Your task to perform on an android device: Open Google Maps Image 0: 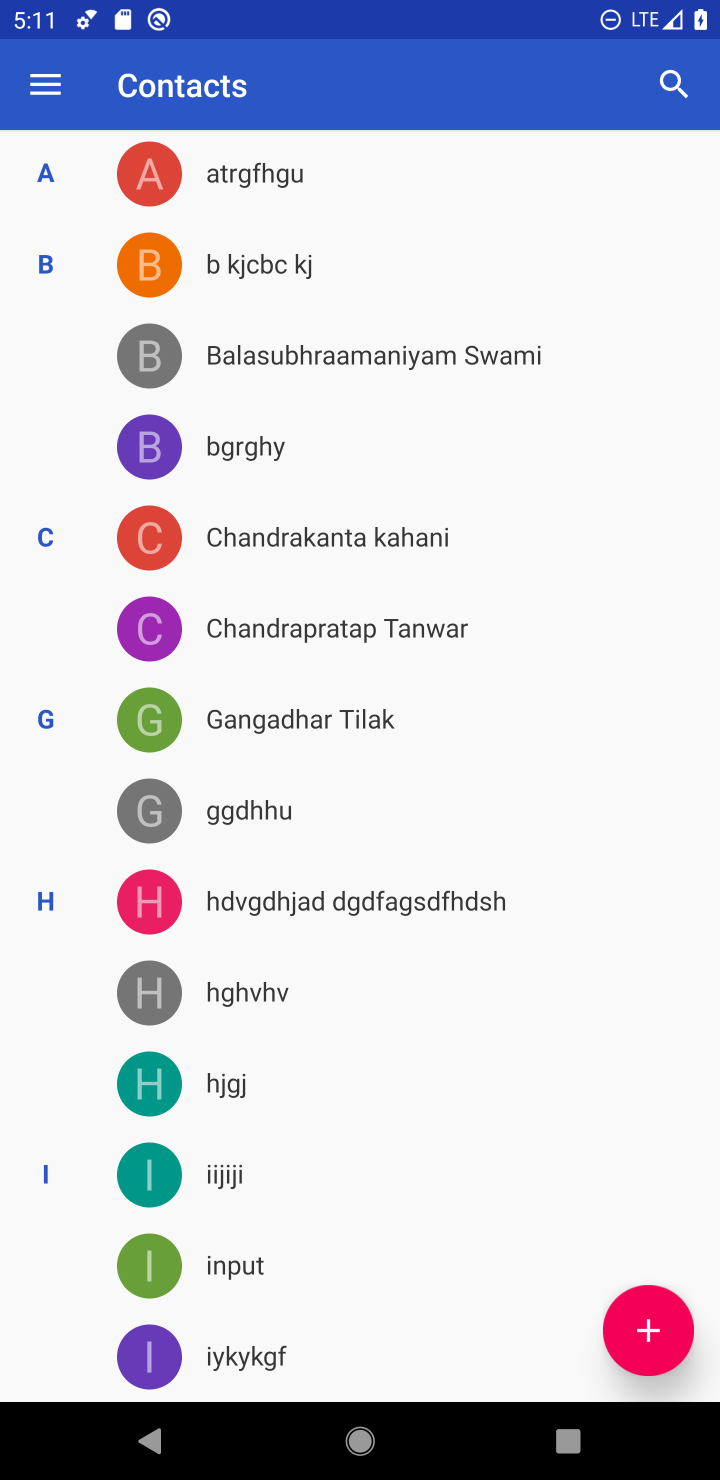
Step 0: press back button
Your task to perform on an android device: Open Google Maps Image 1: 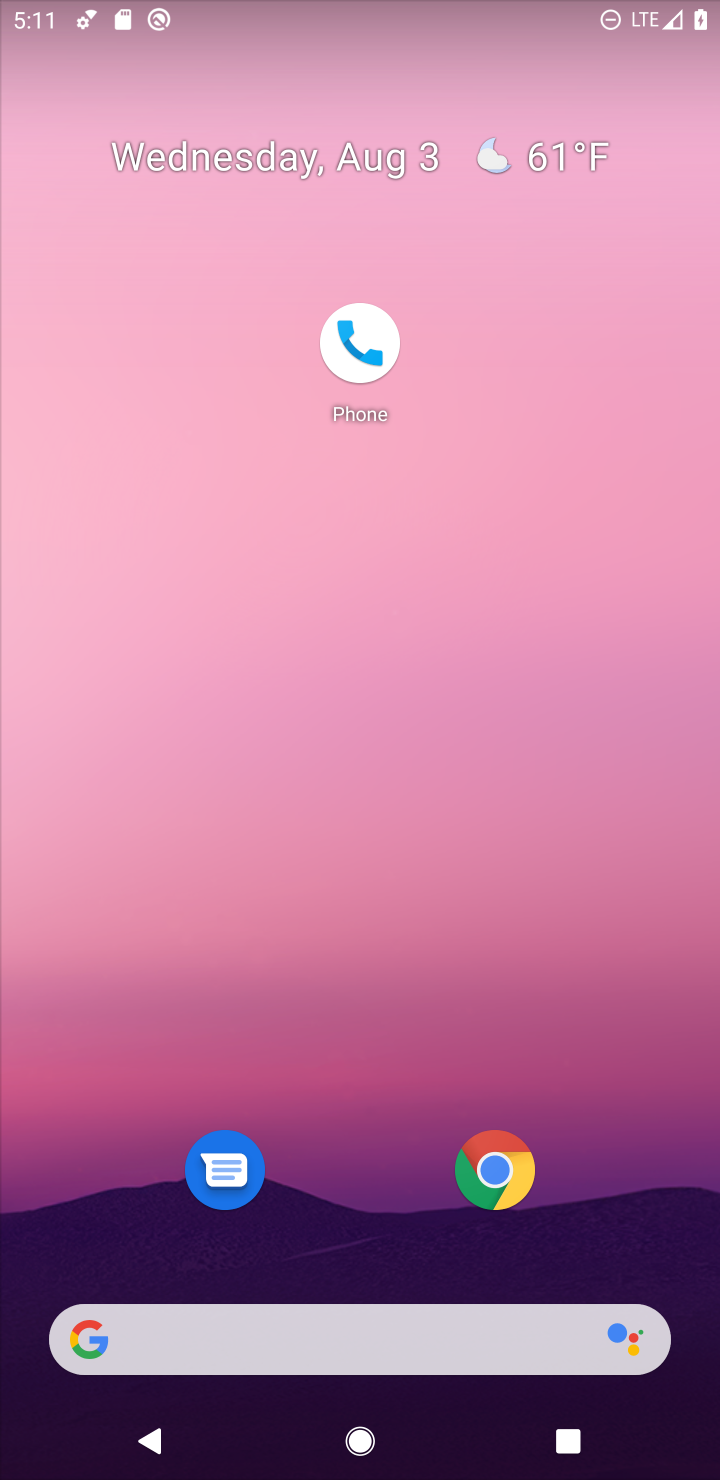
Step 1: click (362, 236)
Your task to perform on an android device: Open Google Maps Image 2: 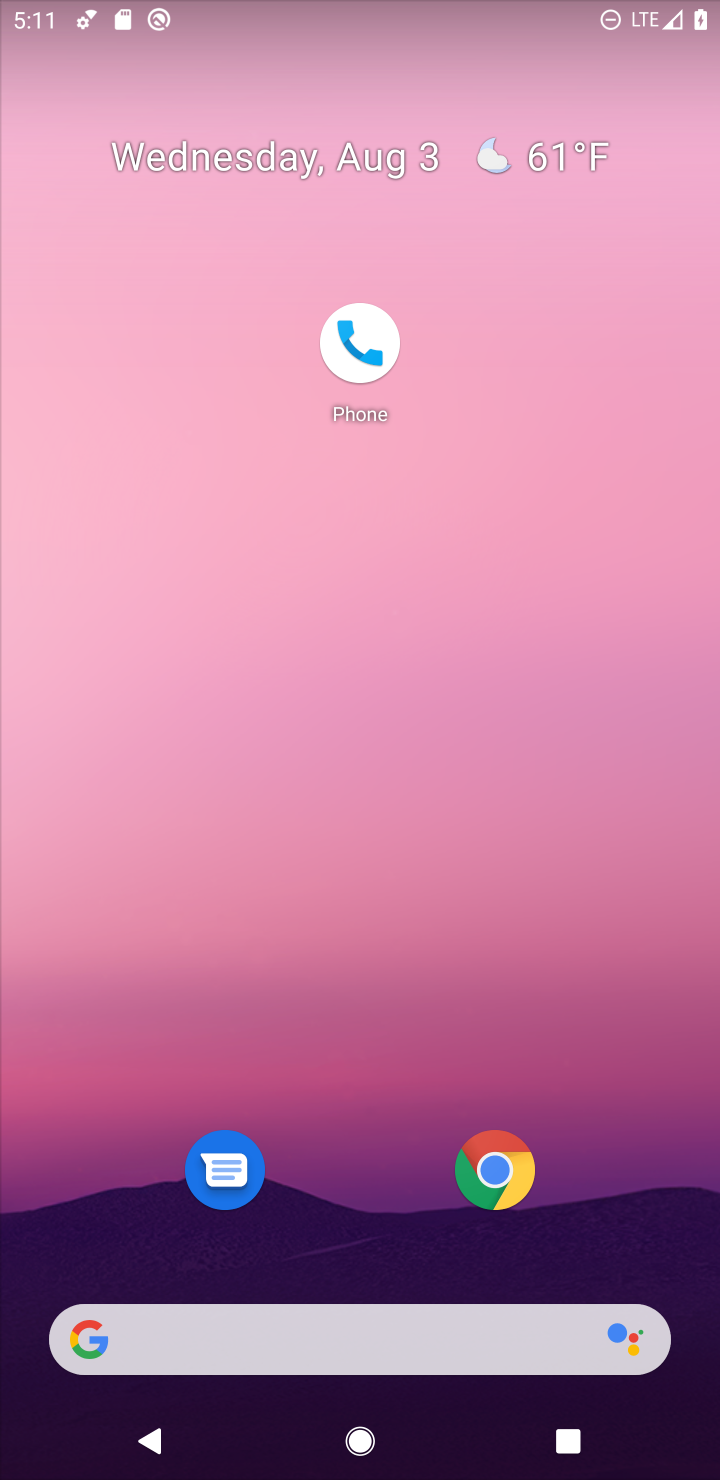
Step 2: drag from (302, 601) to (282, 2)
Your task to perform on an android device: Open Google Maps Image 3: 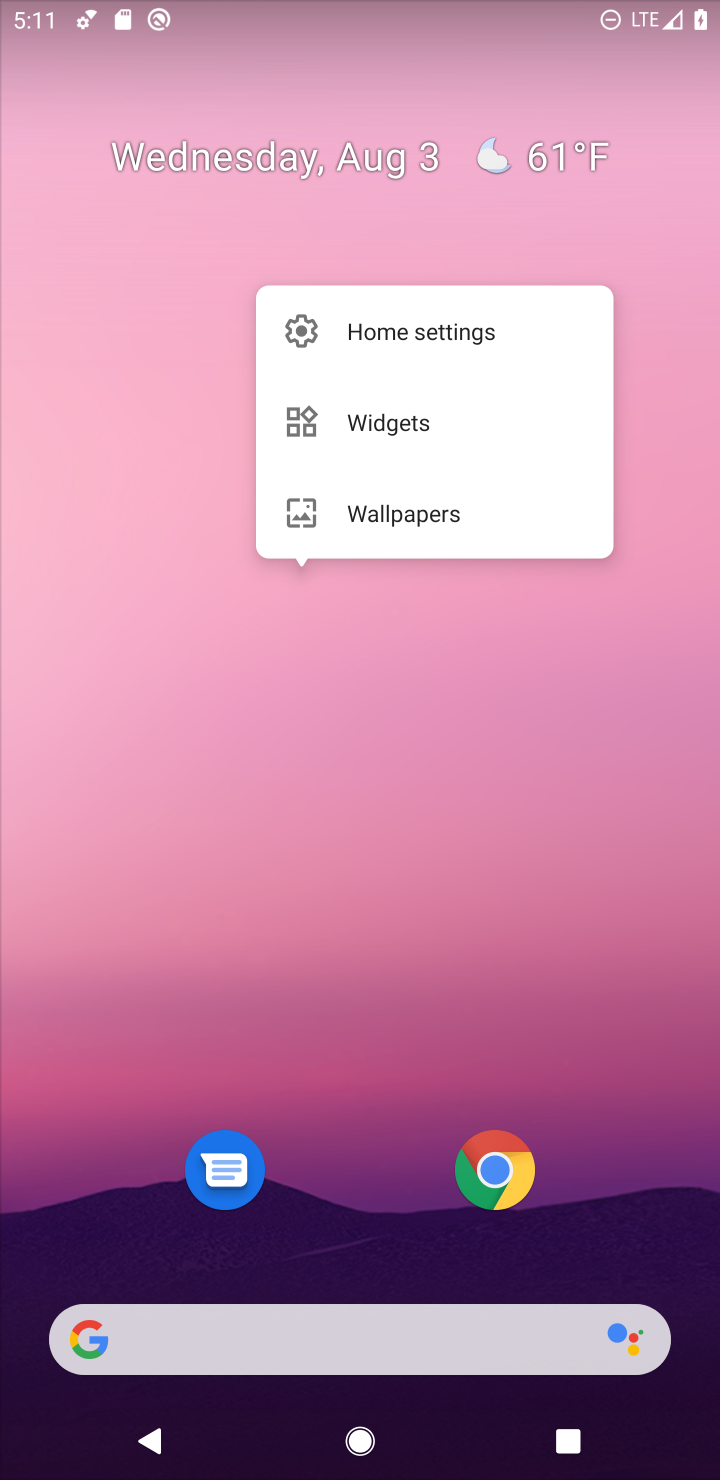
Step 3: click (398, 1189)
Your task to perform on an android device: Open Google Maps Image 4: 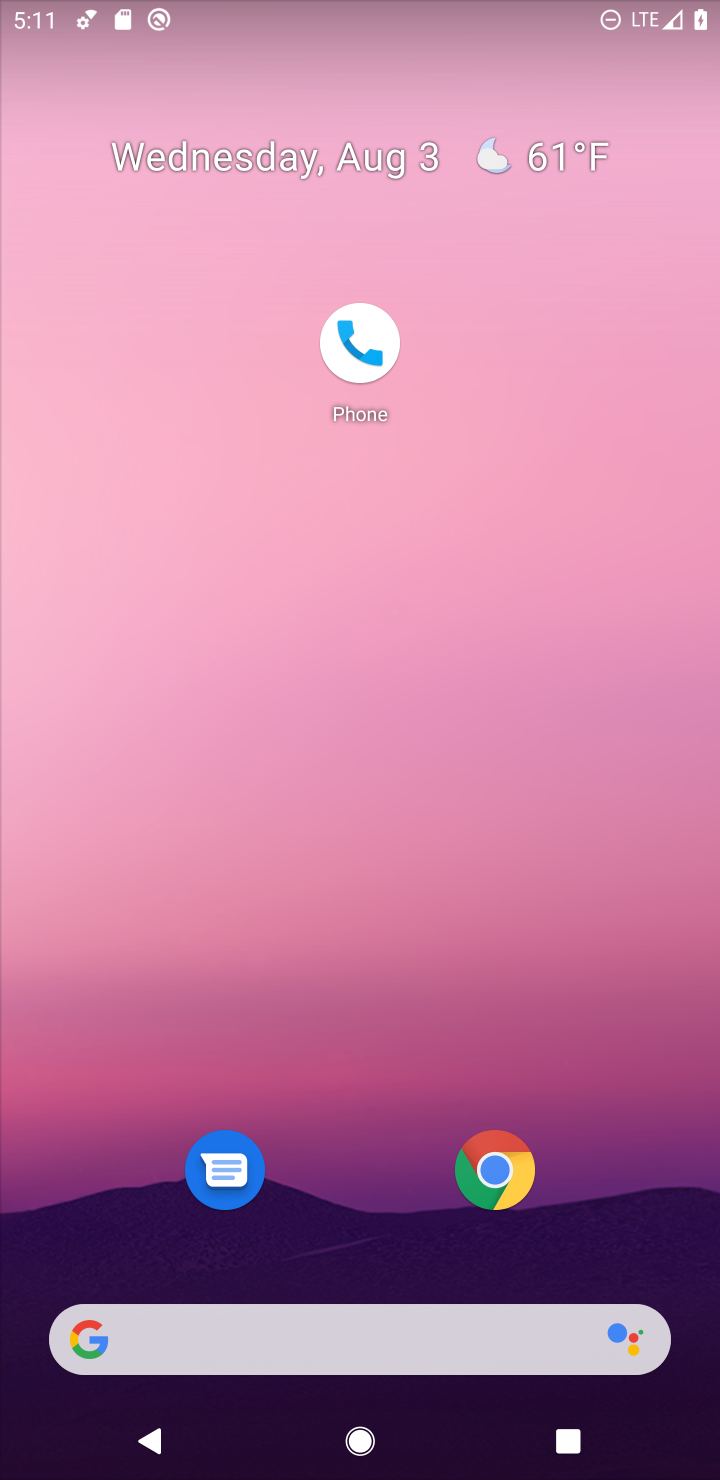
Step 4: drag from (314, 326) to (314, 248)
Your task to perform on an android device: Open Google Maps Image 5: 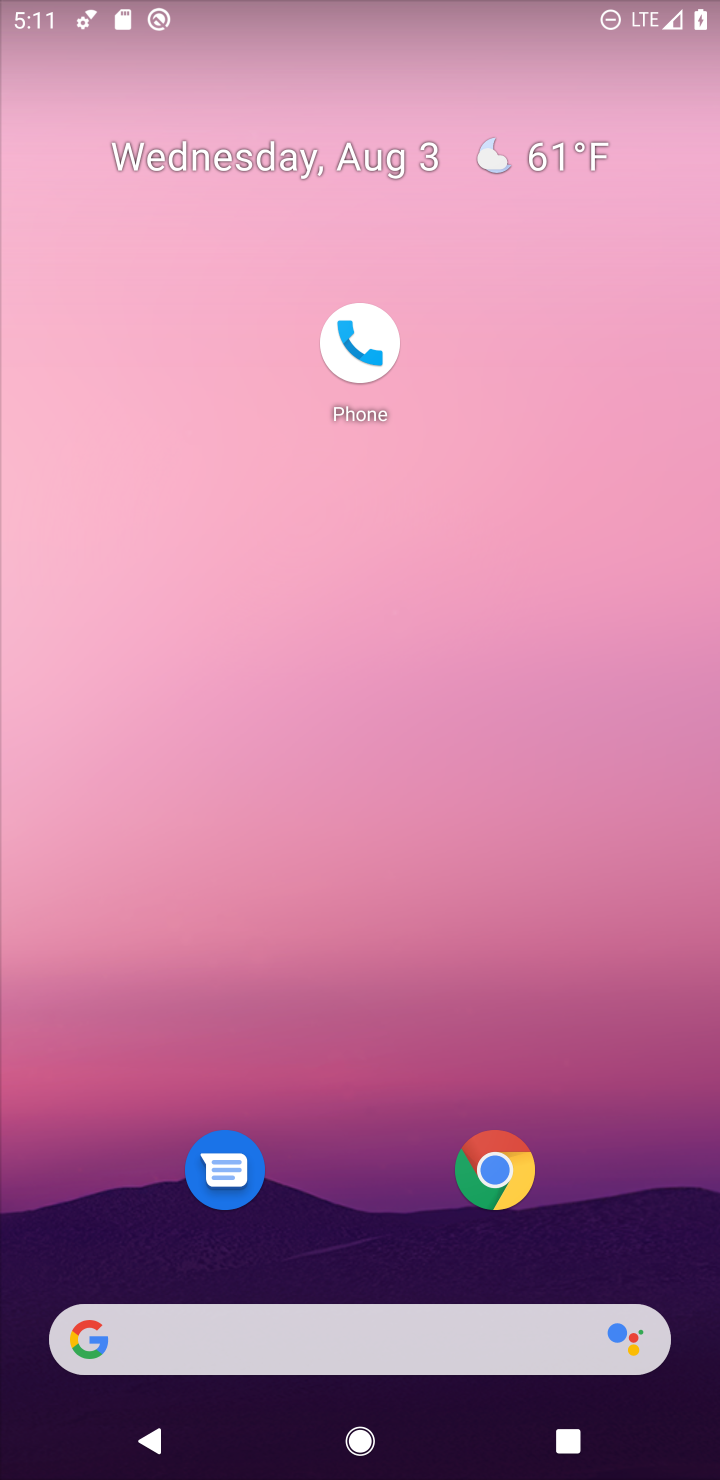
Step 5: drag from (348, 1203) to (452, 216)
Your task to perform on an android device: Open Google Maps Image 6: 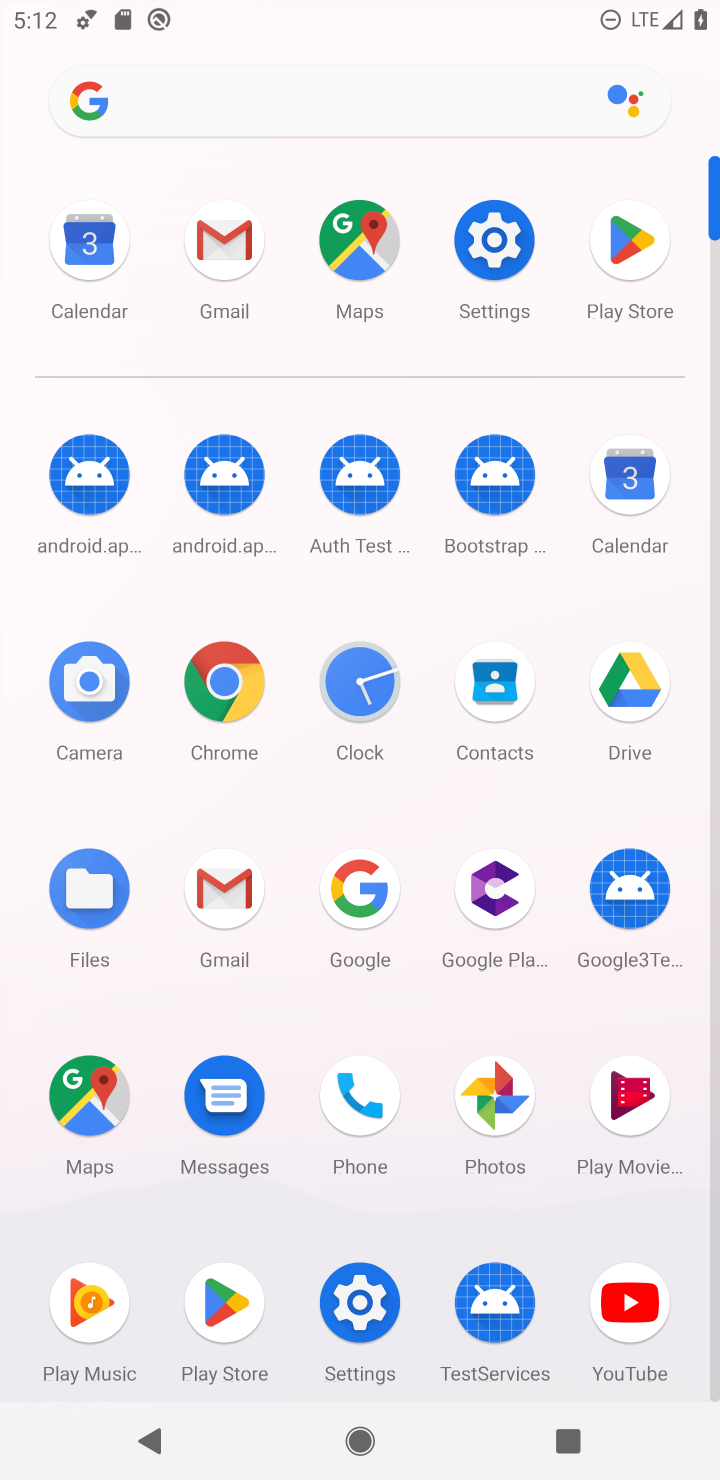
Step 6: click (84, 1088)
Your task to perform on an android device: Open Google Maps Image 7: 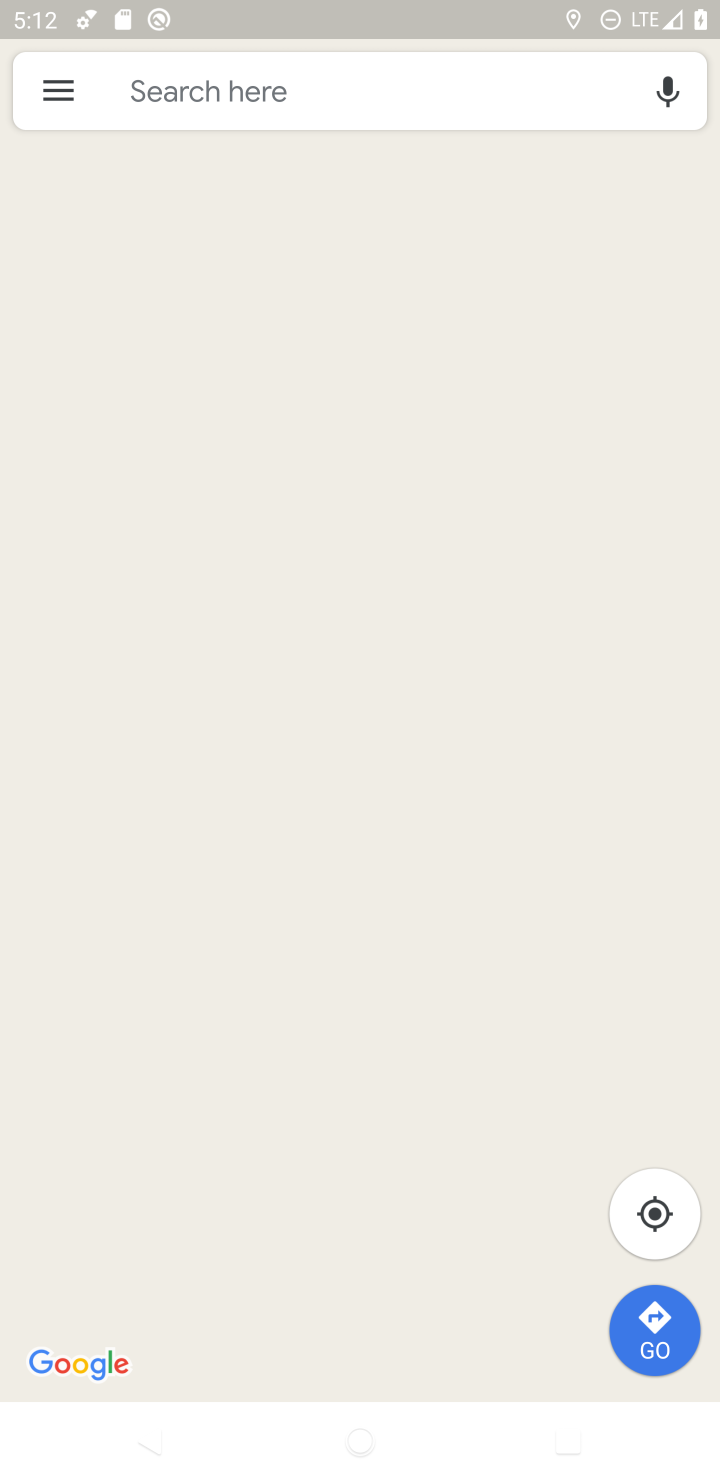
Step 7: task complete